Your task to perform on an android device: check battery use Image 0: 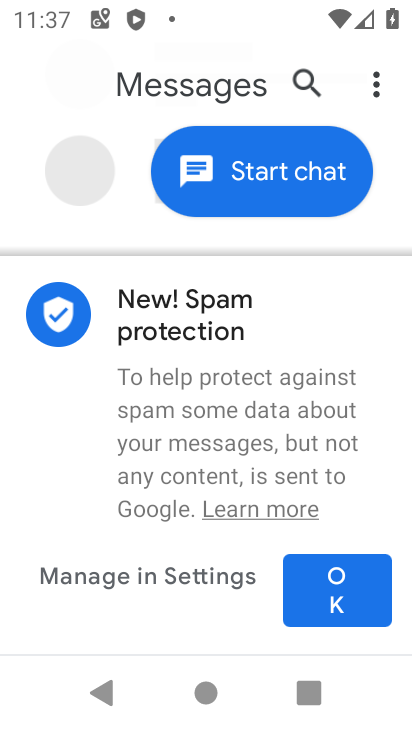
Step 0: press home button
Your task to perform on an android device: check battery use Image 1: 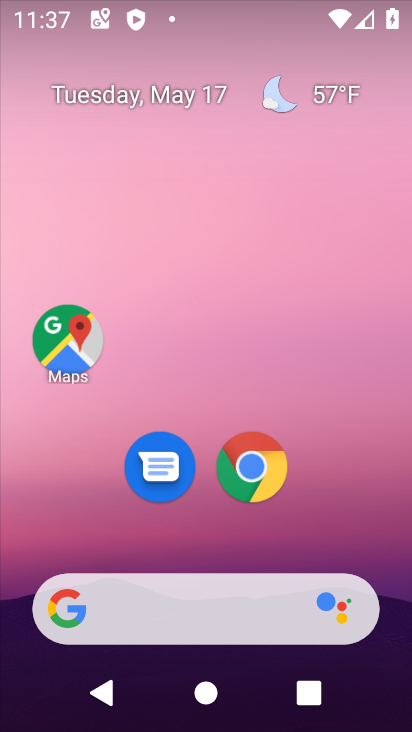
Step 1: drag from (264, 643) to (243, 222)
Your task to perform on an android device: check battery use Image 2: 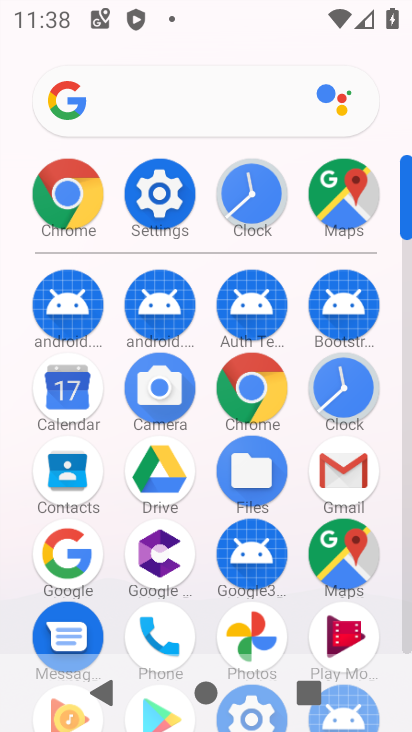
Step 2: click (160, 212)
Your task to perform on an android device: check battery use Image 3: 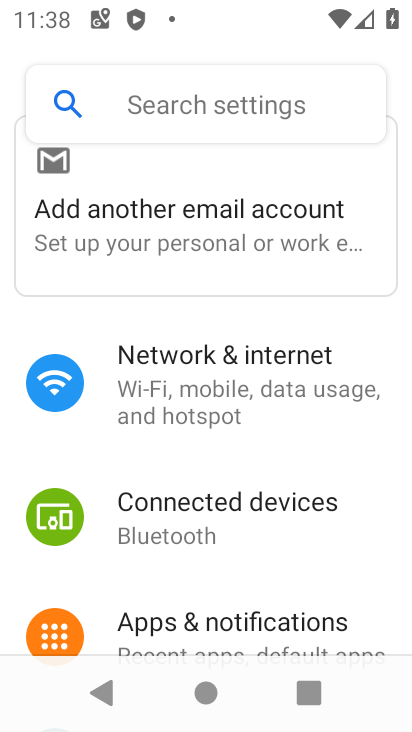
Step 3: click (194, 96)
Your task to perform on an android device: check battery use Image 4: 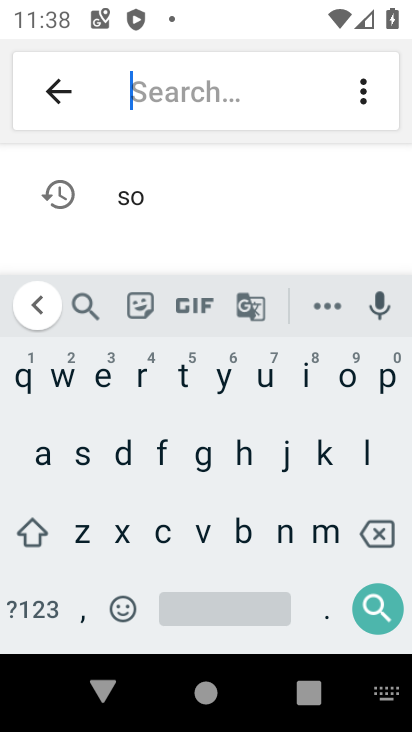
Step 4: click (238, 533)
Your task to perform on an android device: check battery use Image 5: 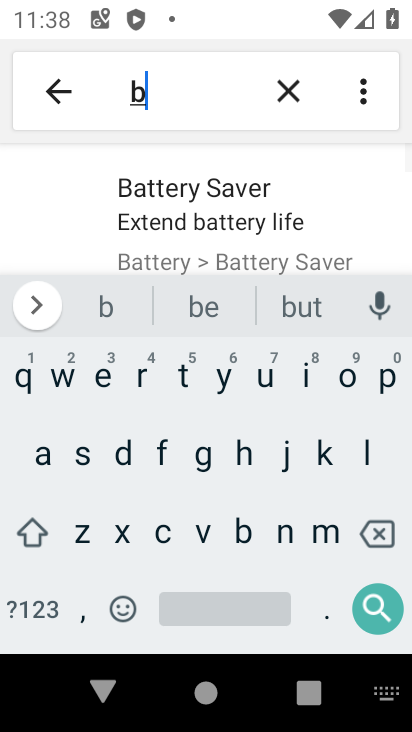
Step 5: click (32, 461)
Your task to perform on an android device: check battery use Image 6: 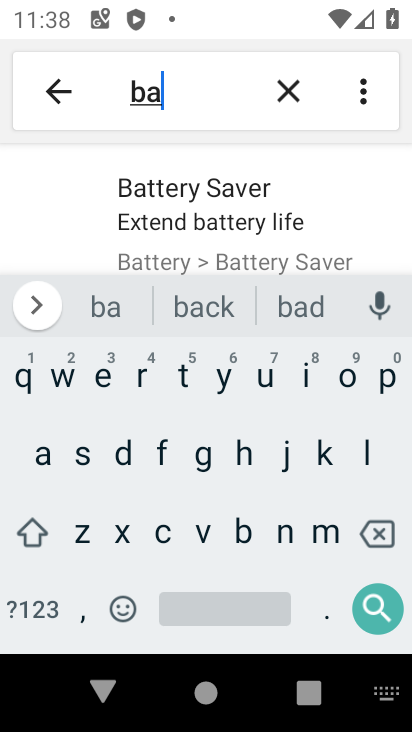
Step 6: click (183, 381)
Your task to perform on an android device: check battery use Image 7: 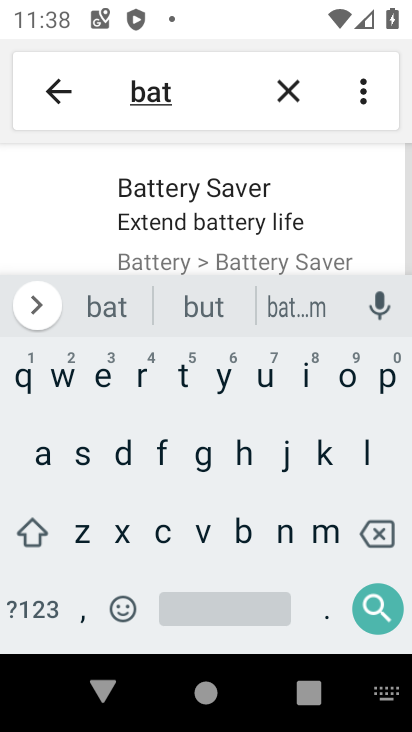
Step 7: click (187, 379)
Your task to perform on an android device: check battery use Image 8: 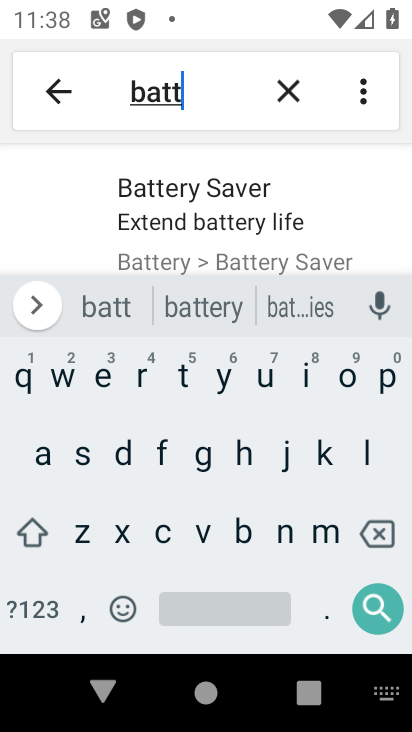
Step 8: click (188, 312)
Your task to perform on an android device: check battery use Image 9: 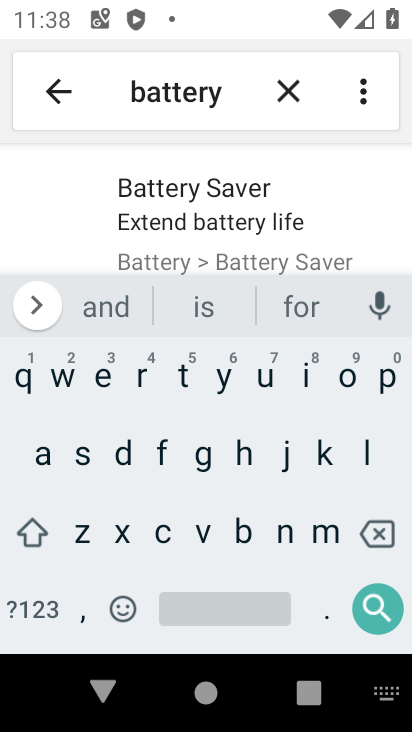
Step 9: press back button
Your task to perform on an android device: check battery use Image 10: 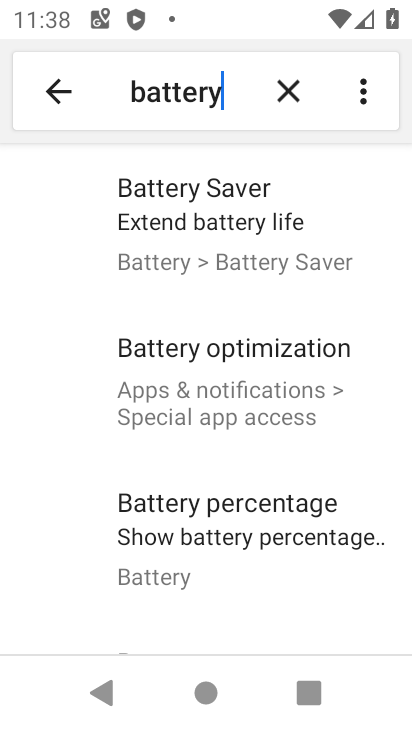
Step 10: drag from (224, 482) to (241, 256)
Your task to perform on an android device: check battery use Image 11: 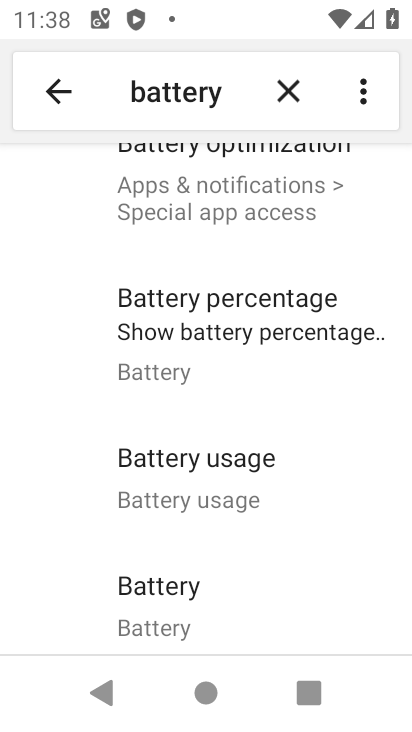
Step 11: click (162, 608)
Your task to perform on an android device: check battery use Image 12: 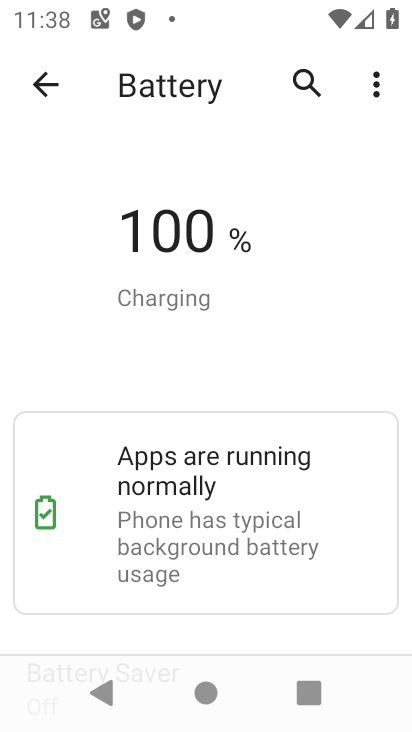
Step 12: task complete